Your task to perform on an android device: check android version Image 0: 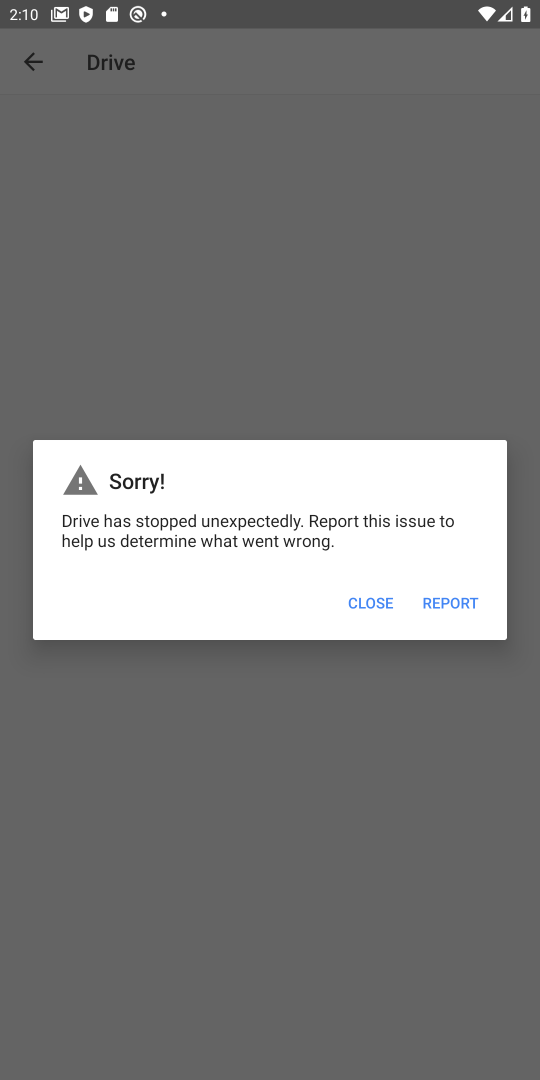
Step 0: press home button
Your task to perform on an android device: check android version Image 1: 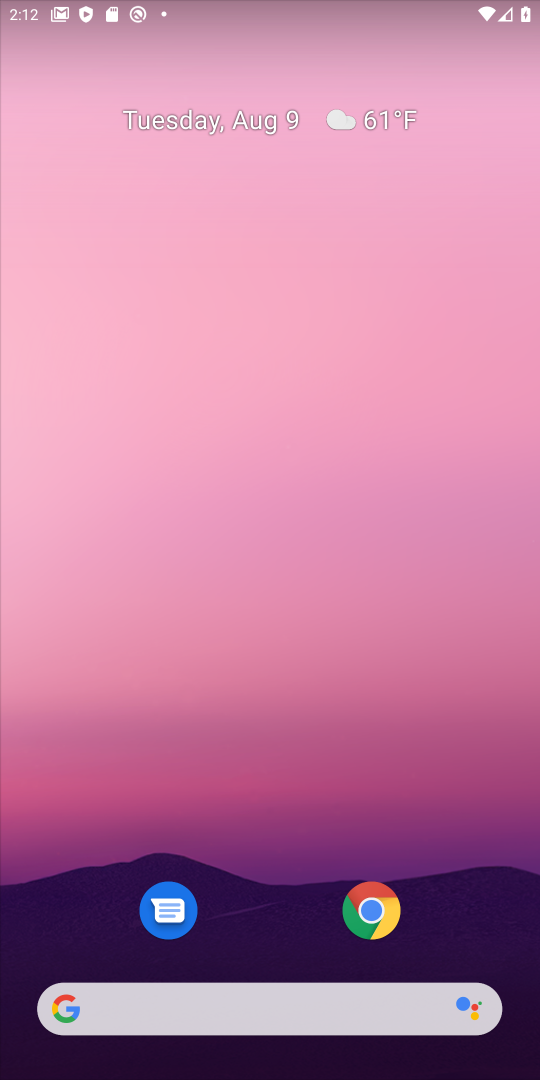
Step 1: drag from (394, 1056) to (327, 20)
Your task to perform on an android device: check android version Image 2: 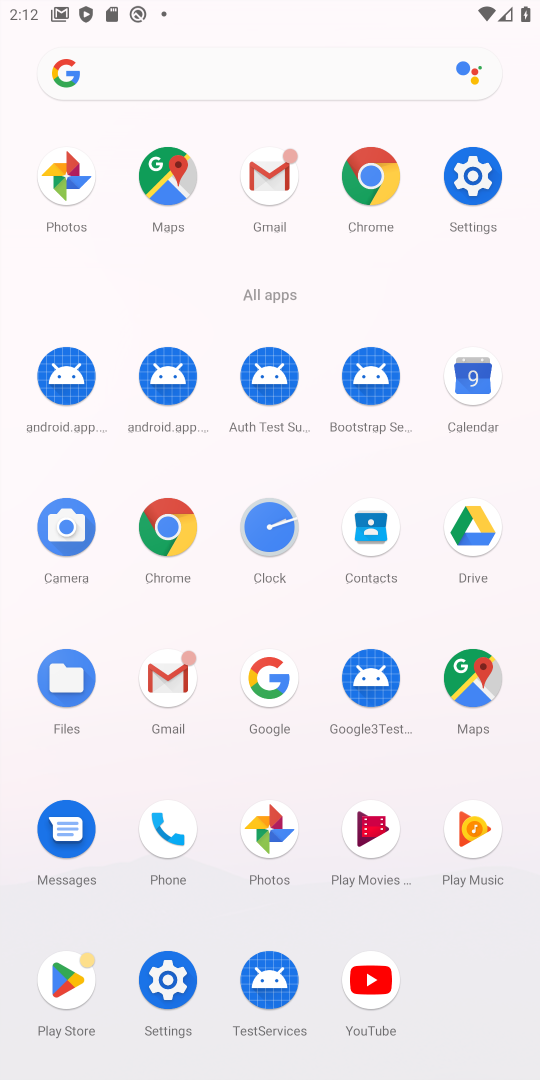
Step 2: click (143, 968)
Your task to perform on an android device: check android version Image 3: 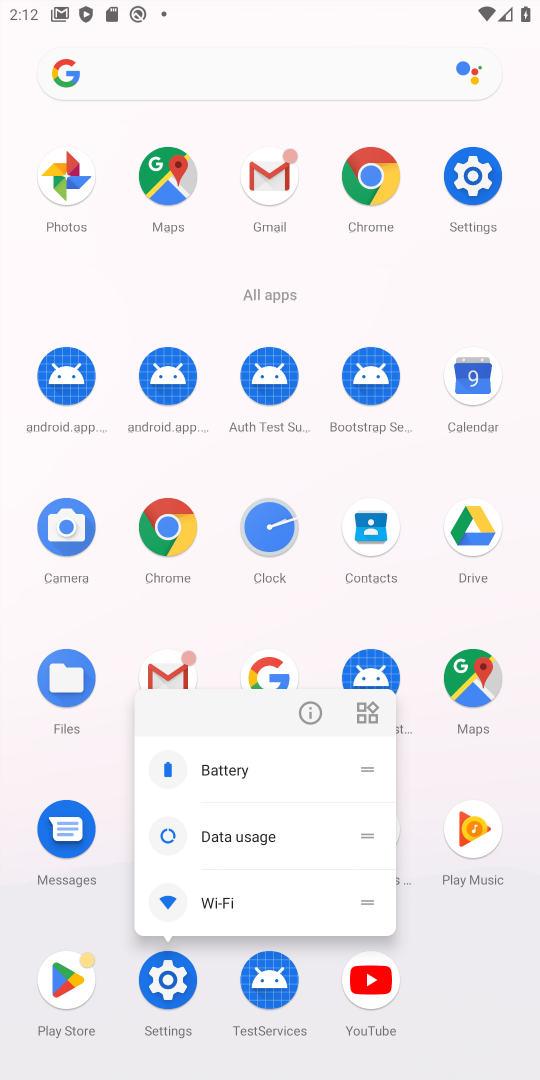
Step 3: click (167, 997)
Your task to perform on an android device: check android version Image 4: 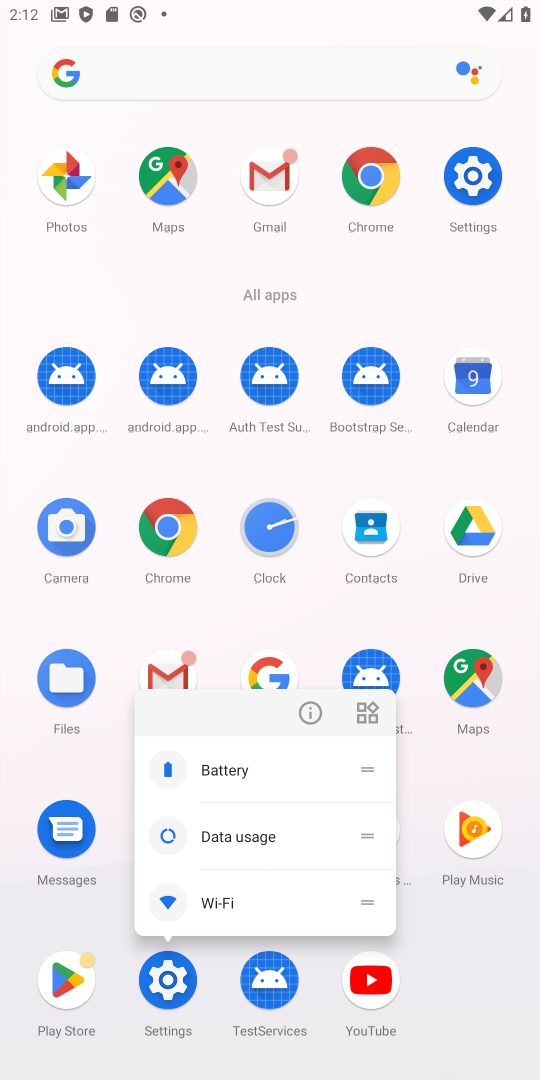
Step 4: click (167, 997)
Your task to perform on an android device: check android version Image 5: 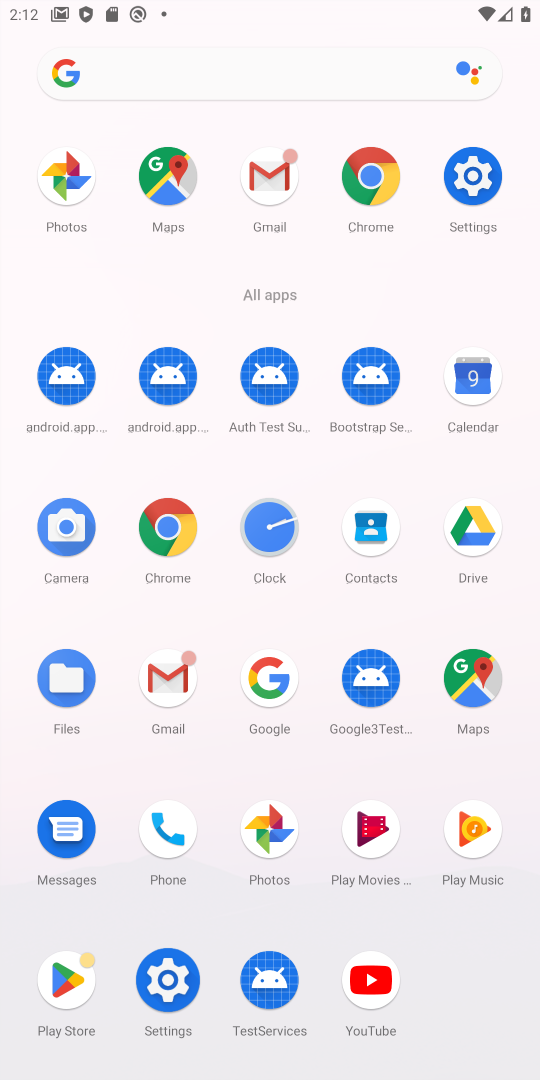
Step 5: click (167, 997)
Your task to perform on an android device: check android version Image 6: 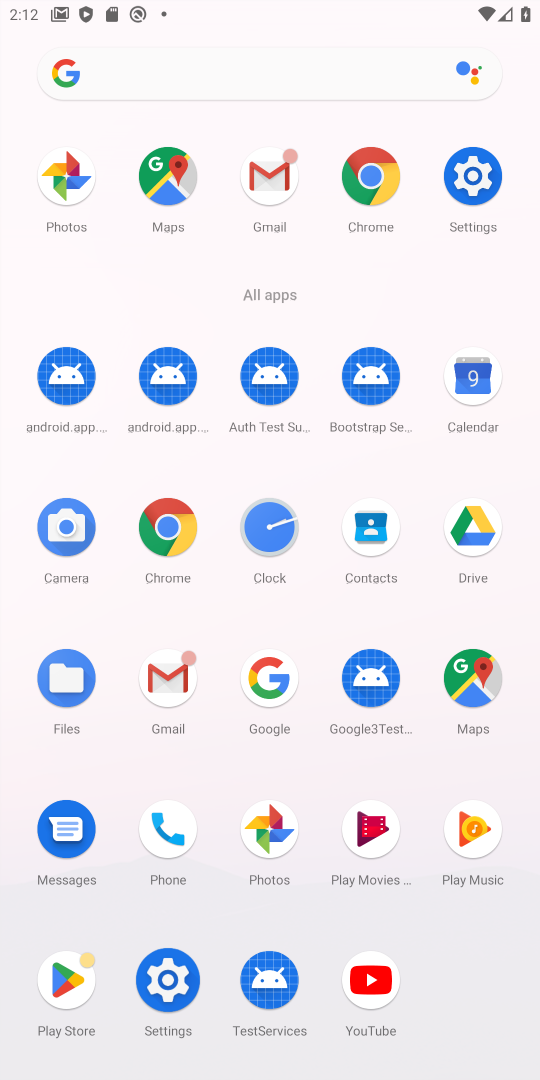
Step 6: click (167, 997)
Your task to perform on an android device: check android version Image 7: 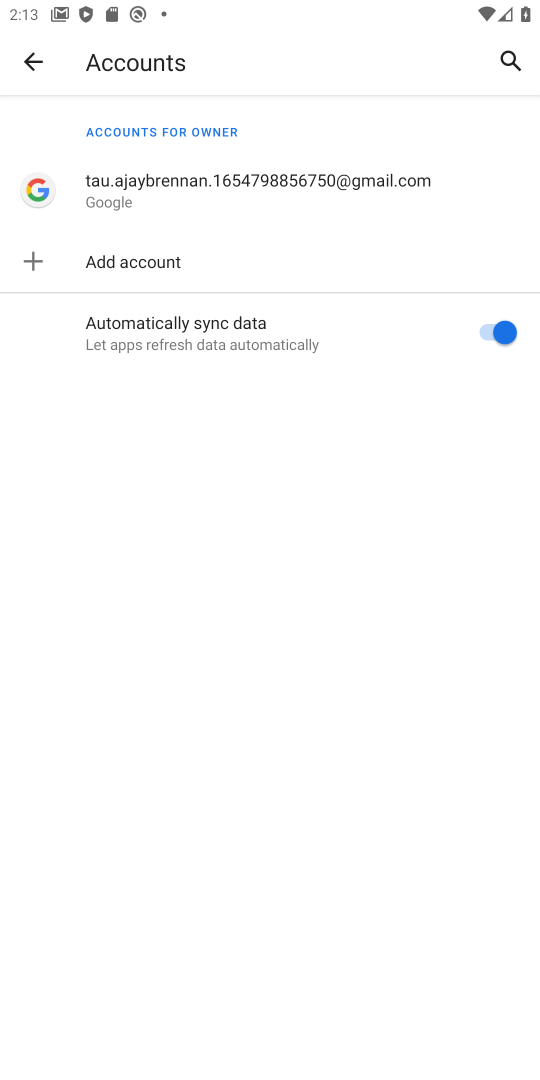
Step 7: click (36, 63)
Your task to perform on an android device: check android version Image 8: 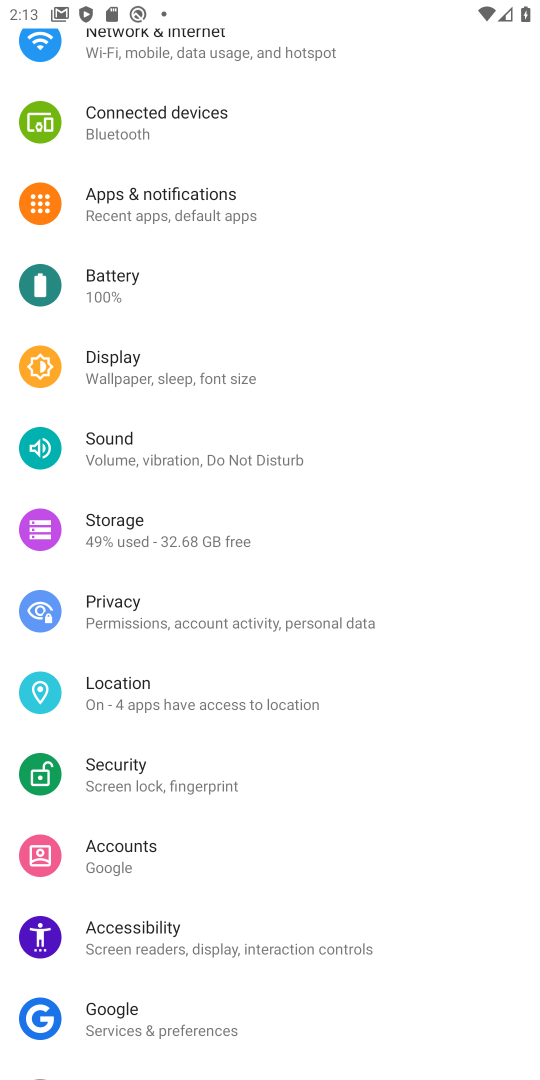
Step 8: drag from (296, 990) to (272, 135)
Your task to perform on an android device: check android version Image 9: 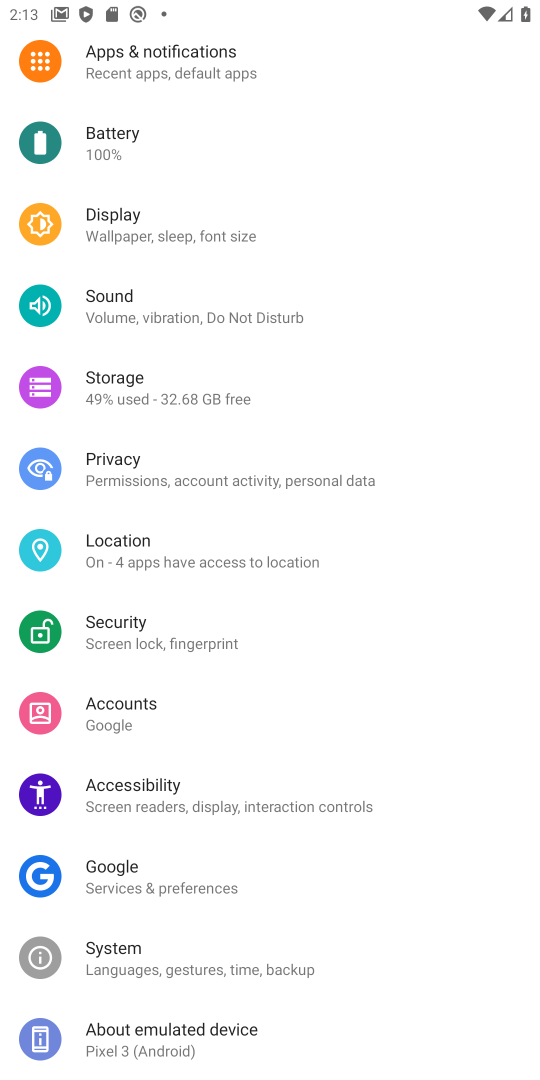
Step 9: click (249, 1038)
Your task to perform on an android device: check android version Image 10: 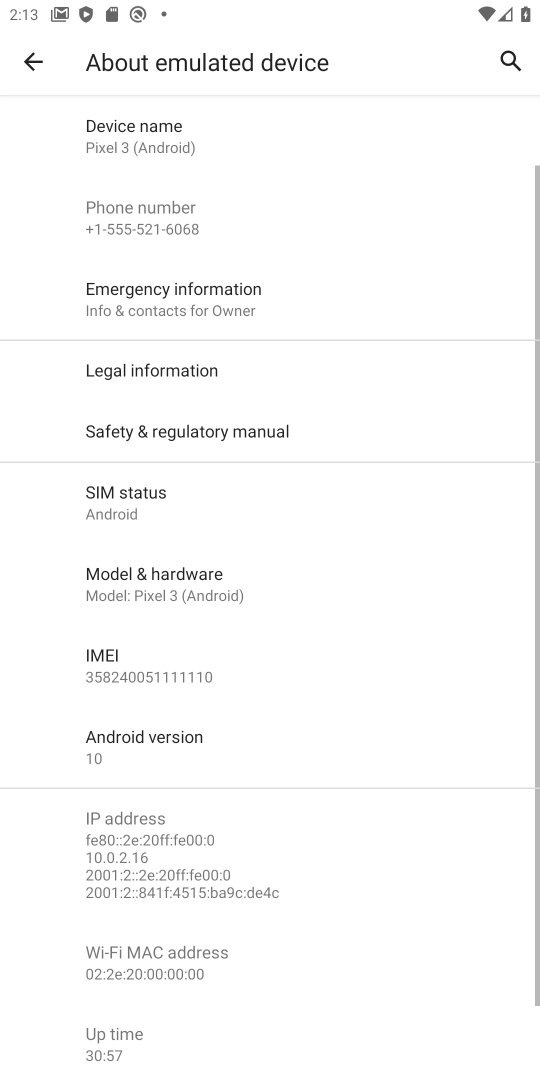
Step 10: task complete